Your task to perform on an android device: turn off data saver in the chrome app Image 0: 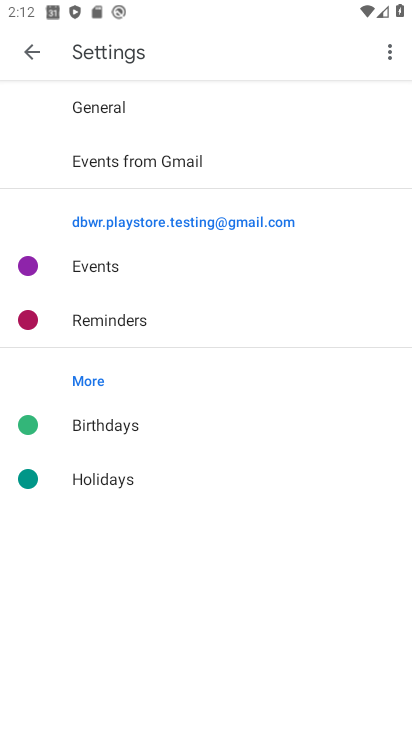
Step 0: press home button
Your task to perform on an android device: turn off data saver in the chrome app Image 1: 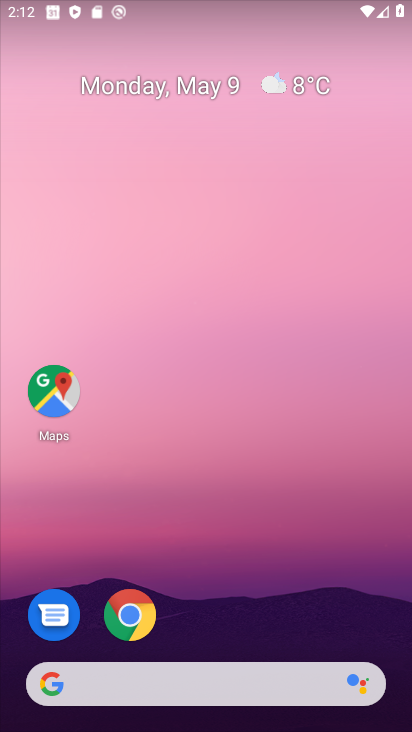
Step 1: click (151, 601)
Your task to perform on an android device: turn off data saver in the chrome app Image 2: 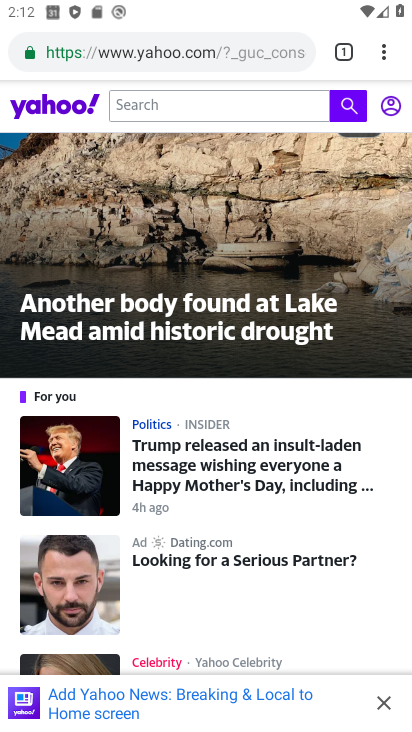
Step 2: click (384, 63)
Your task to perform on an android device: turn off data saver in the chrome app Image 3: 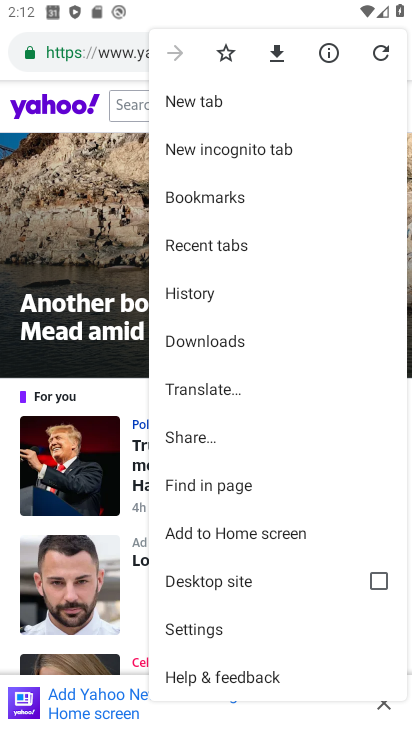
Step 3: click (220, 627)
Your task to perform on an android device: turn off data saver in the chrome app Image 4: 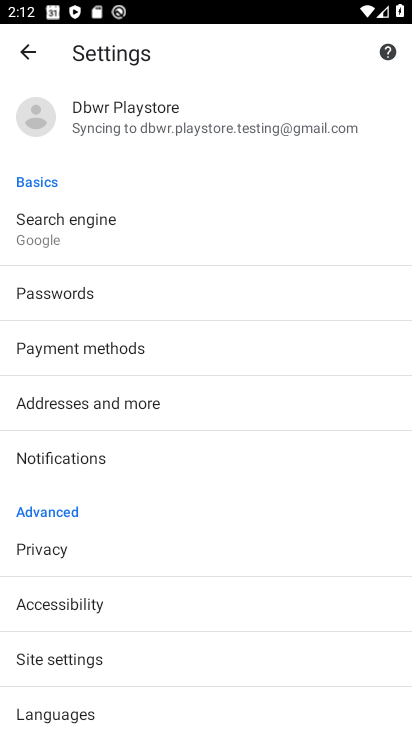
Step 4: drag from (230, 657) to (235, 323)
Your task to perform on an android device: turn off data saver in the chrome app Image 5: 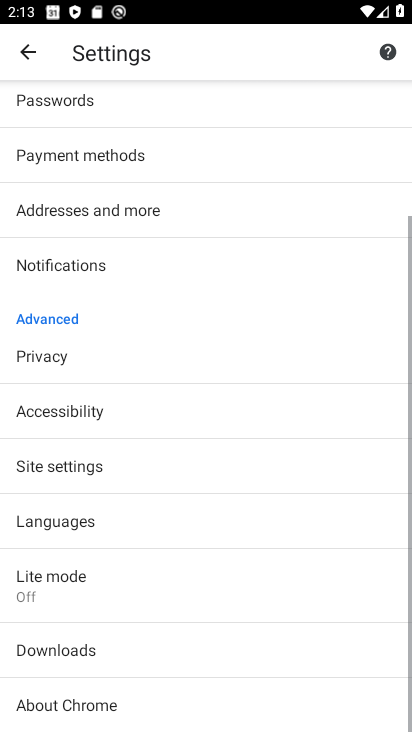
Step 5: click (262, 581)
Your task to perform on an android device: turn off data saver in the chrome app Image 6: 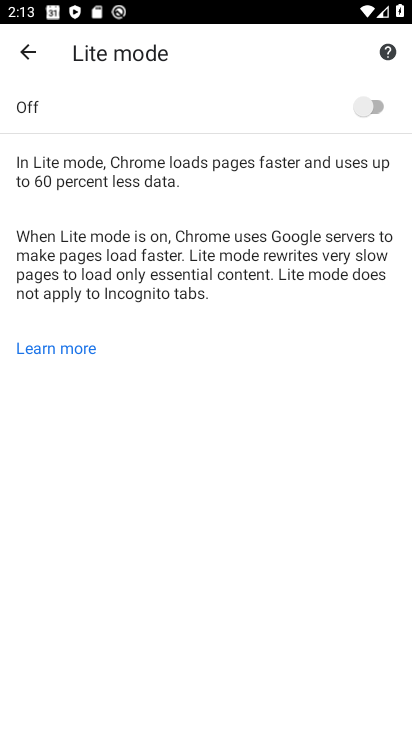
Step 6: task complete